Your task to perform on an android device: turn off javascript in the chrome app Image 0: 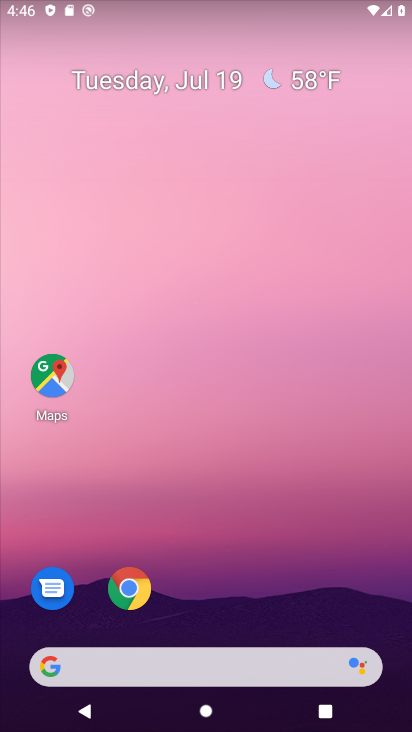
Step 0: drag from (309, 590) to (258, 124)
Your task to perform on an android device: turn off javascript in the chrome app Image 1: 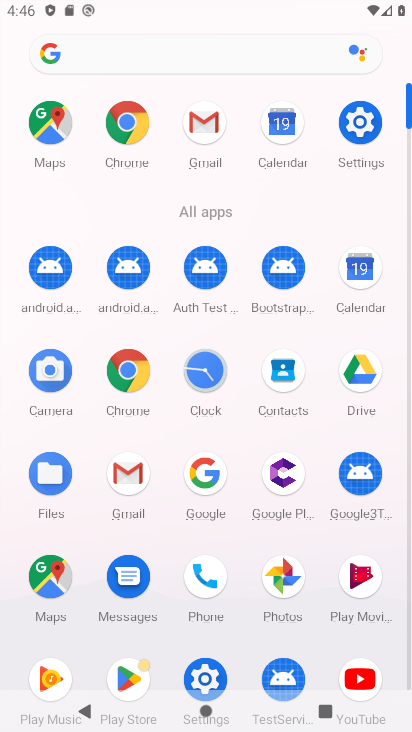
Step 1: click (124, 116)
Your task to perform on an android device: turn off javascript in the chrome app Image 2: 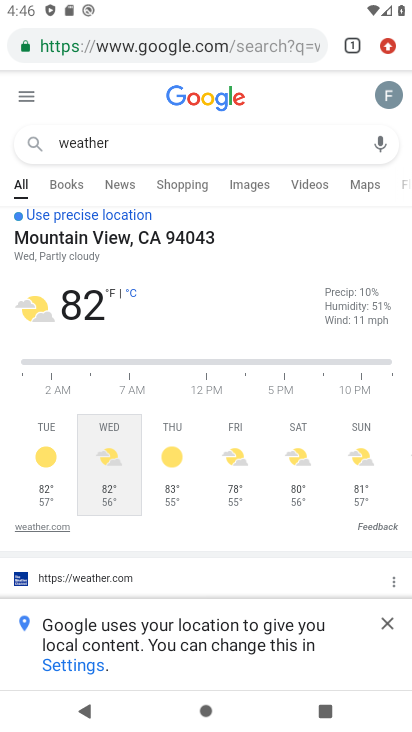
Step 2: drag from (402, 39) to (240, 549)
Your task to perform on an android device: turn off javascript in the chrome app Image 3: 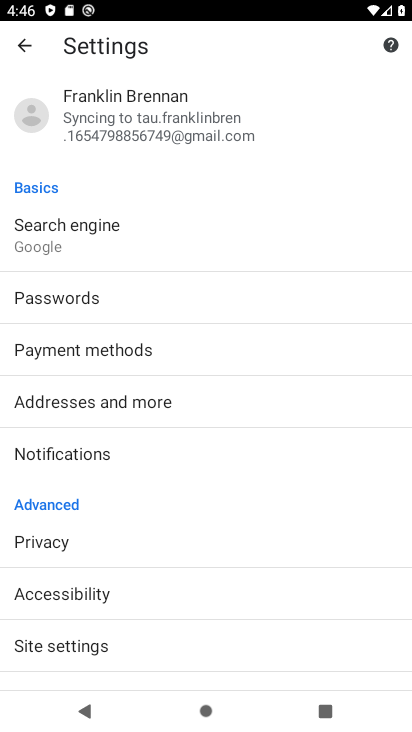
Step 3: drag from (198, 620) to (176, 230)
Your task to perform on an android device: turn off javascript in the chrome app Image 4: 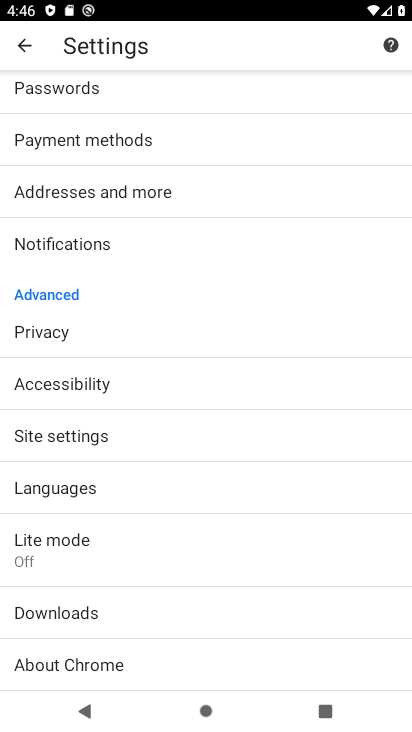
Step 4: click (55, 432)
Your task to perform on an android device: turn off javascript in the chrome app Image 5: 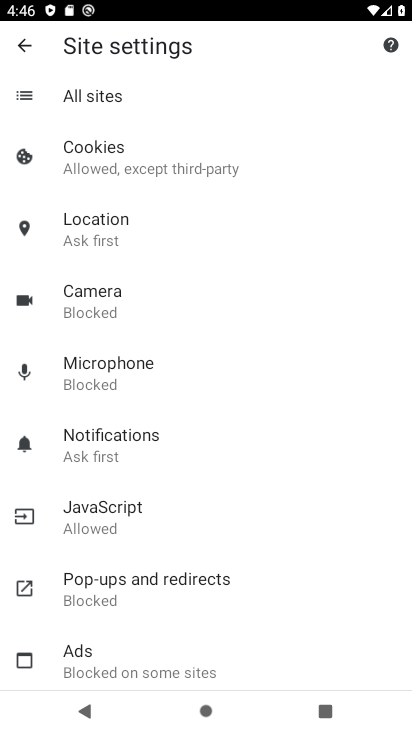
Step 5: click (123, 521)
Your task to perform on an android device: turn off javascript in the chrome app Image 6: 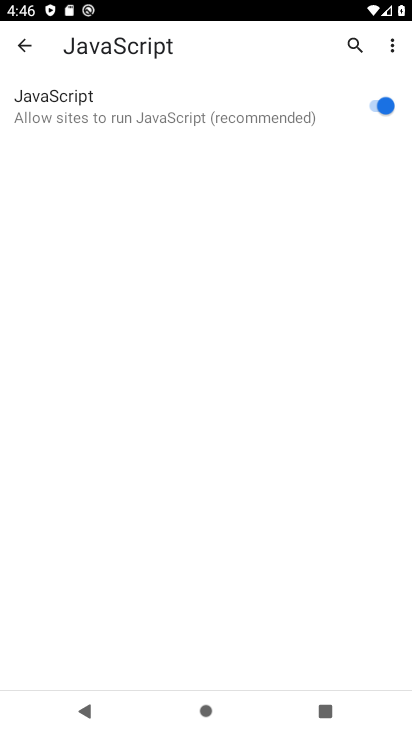
Step 6: click (383, 102)
Your task to perform on an android device: turn off javascript in the chrome app Image 7: 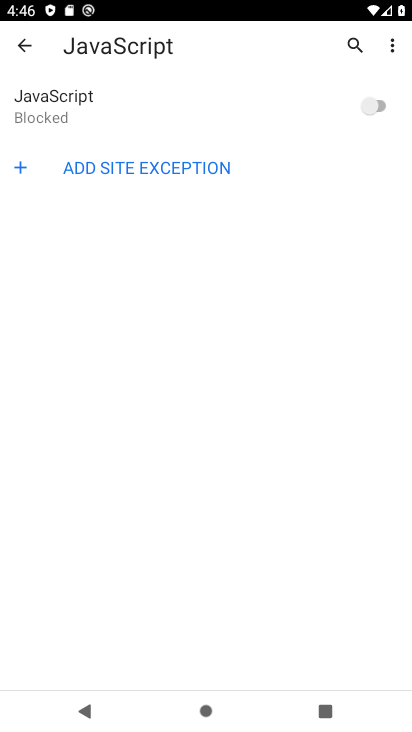
Step 7: task complete